Your task to perform on an android device: Do I have any events this weekend? Image 0: 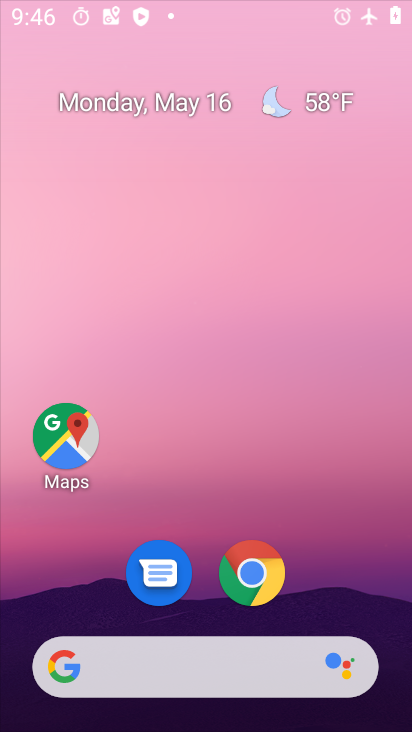
Step 0: drag from (366, 698) to (86, 146)
Your task to perform on an android device: Do I have any events this weekend? Image 1: 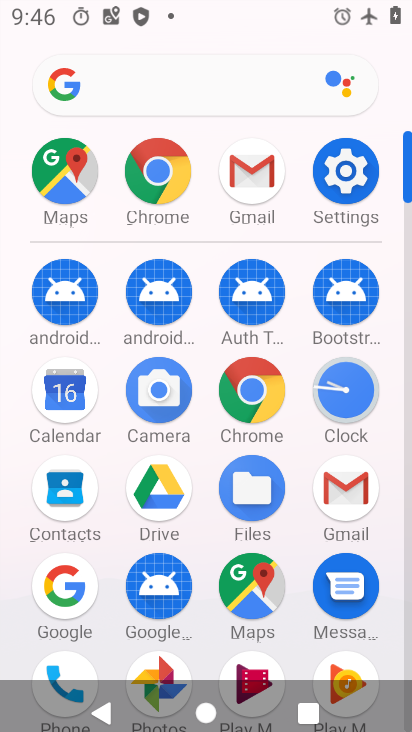
Step 1: click (323, 177)
Your task to perform on an android device: Do I have any events this weekend? Image 2: 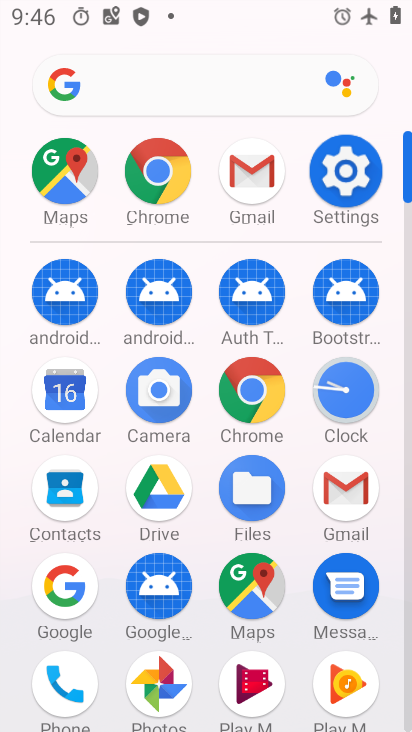
Step 2: click (323, 177)
Your task to perform on an android device: Do I have any events this weekend? Image 3: 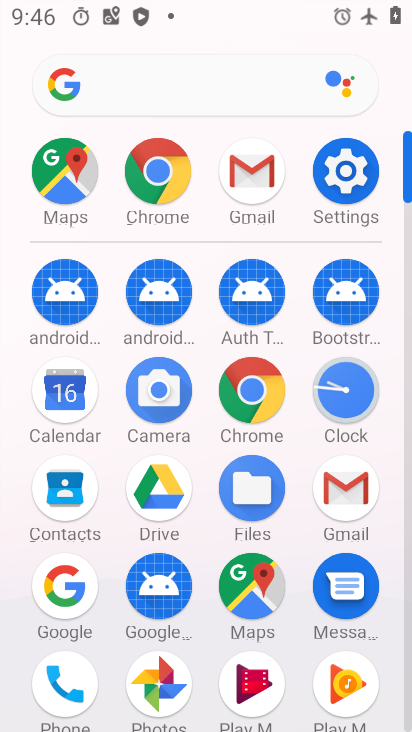
Step 3: click (351, 179)
Your task to perform on an android device: Do I have any events this weekend? Image 4: 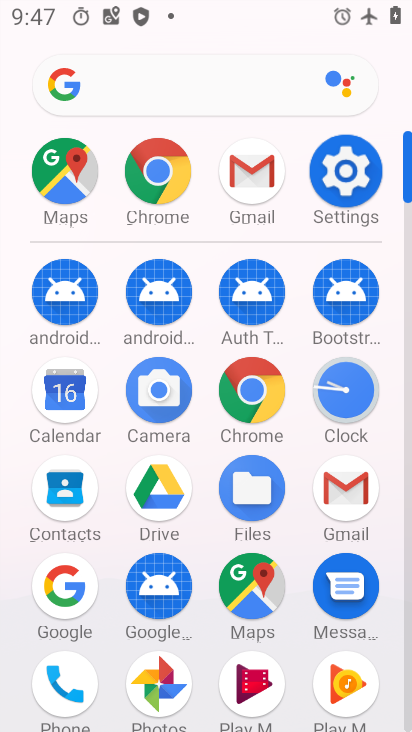
Step 4: click (351, 179)
Your task to perform on an android device: Do I have any events this weekend? Image 5: 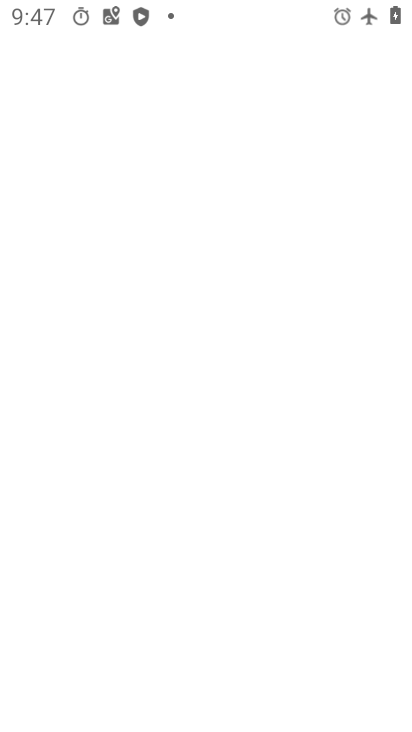
Step 5: click (351, 179)
Your task to perform on an android device: Do I have any events this weekend? Image 6: 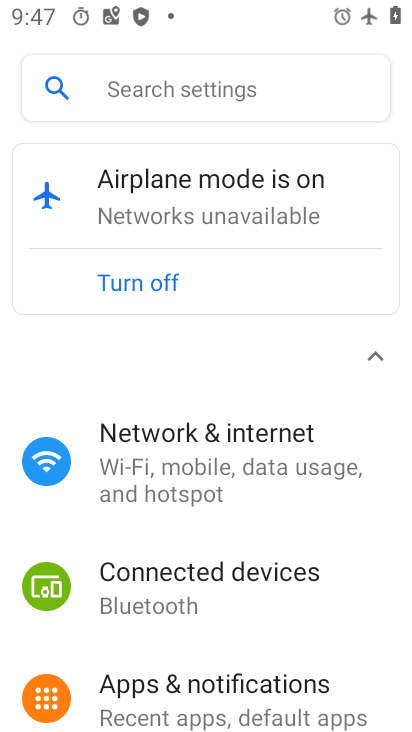
Step 6: click (220, 443)
Your task to perform on an android device: Do I have any events this weekend? Image 7: 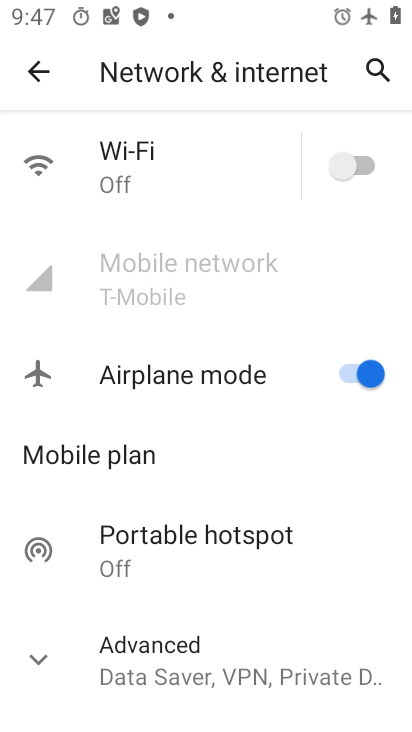
Step 7: click (368, 375)
Your task to perform on an android device: Do I have any events this weekend? Image 8: 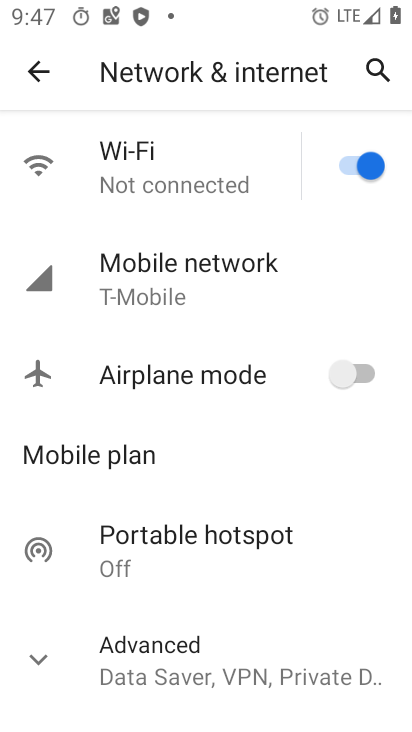
Step 8: press back button
Your task to perform on an android device: Do I have any events this weekend? Image 9: 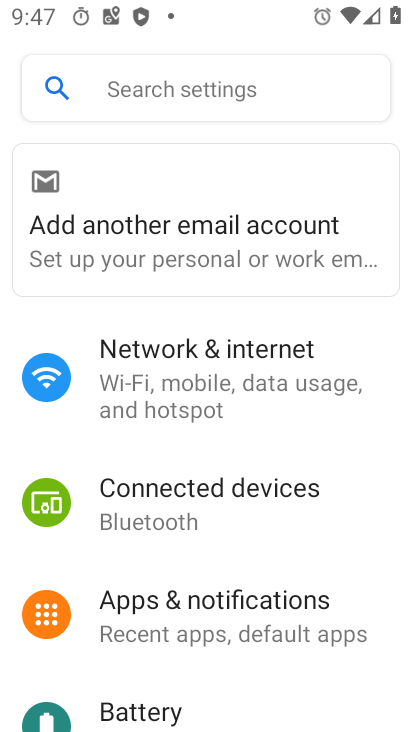
Step 9: press home button
Your task to perform on an android device: Do I have any events this weekend? Image 10: 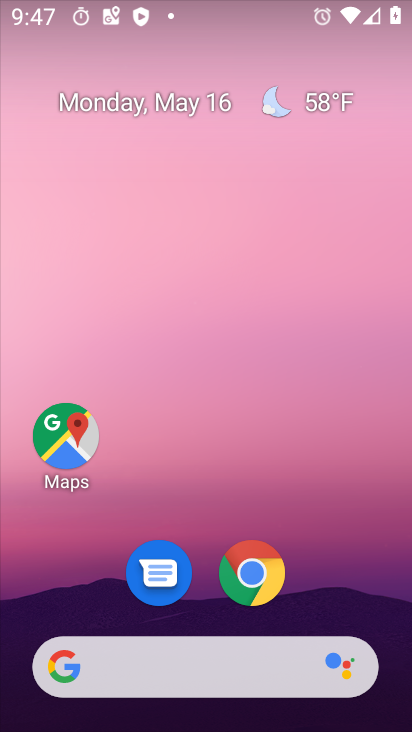
Step 10: drag from (312, 646) to (81, 197)
Your task to perform on an android device: Do I have any events this weekend? Image 11: 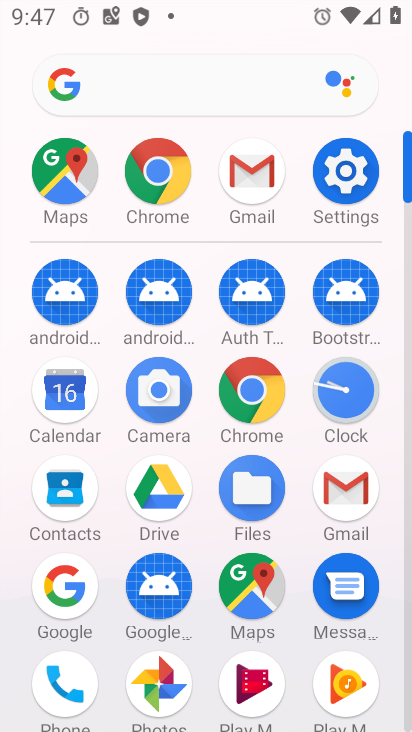
Step 11: click (63, 398)
Your task to perform on an android device: Do I have any events this weekend? Image 12: 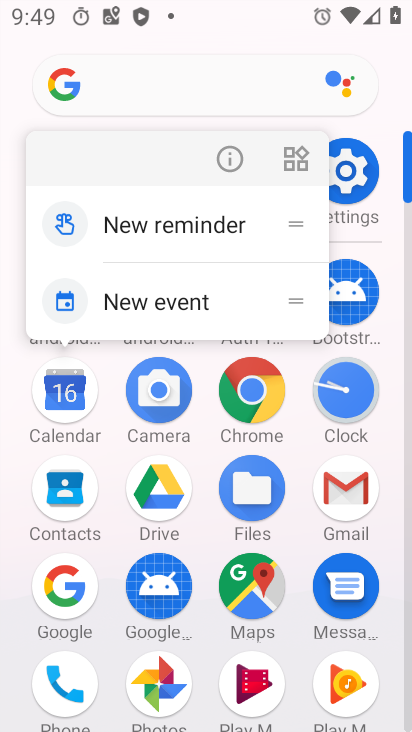
Step 12: click (63, 398)
Your task to perform on an android device: Do I have any events this weekend? Image 13: 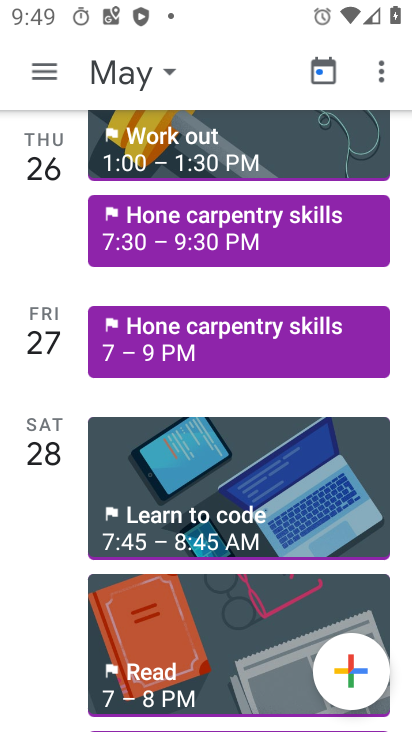
Step 13: drag from (125, 152) to (222, 467)
Your task to perform on an android device: Do I have any events this weekend? Image 14: 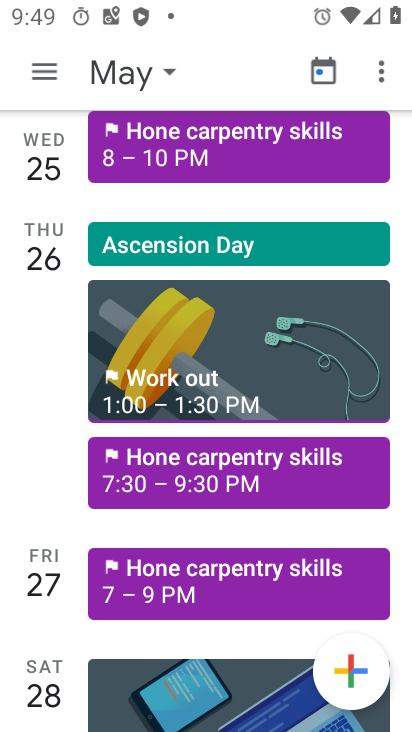
Step 14: drag from (145, 164) to (212, 542)
Your task to perform on an android device: Do I have any events this weekend? Image 15: 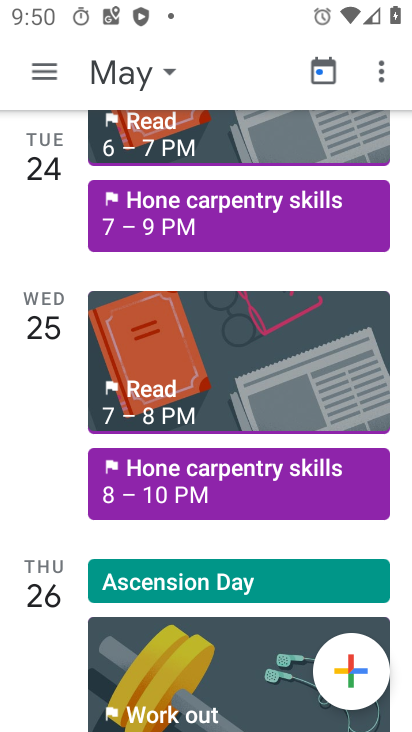
Step 15: drag from (168, 145) to (226, 623)
Your task to perform on an android device: Do I have any events this weekend? Image 16: 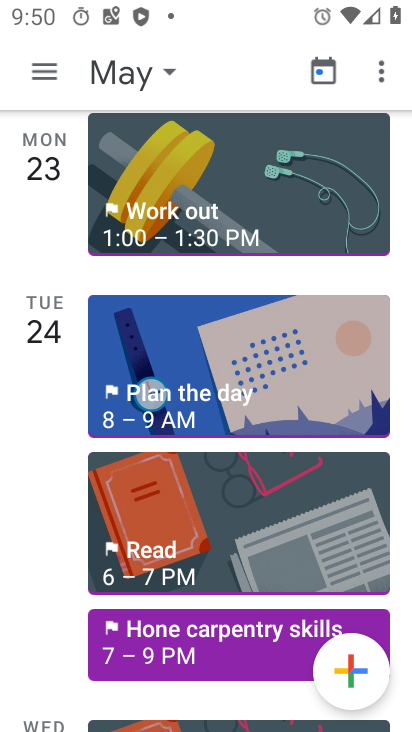
Step 16: drag from (142, 202) to (249, 626)
Your task to perform on an android device: Do I have any events this weekend? Image 17: 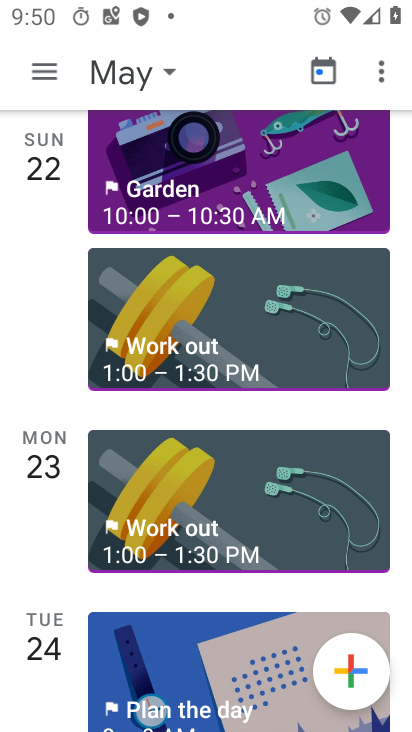
Step 17: drag from (185, 190) to (300, 627)
Your task to perform on an android device: Do I have any events this weekend? Image 18: 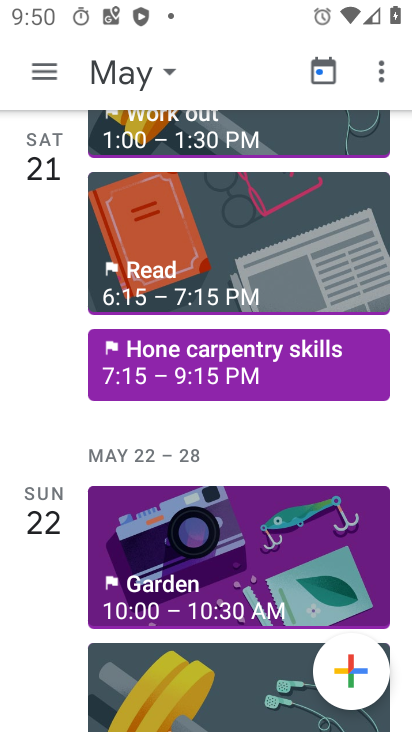
Step 18: drag from (175, 193) to (199, 543)
Your task to perform on an android device: Do I have any events this weekend? Image 19: 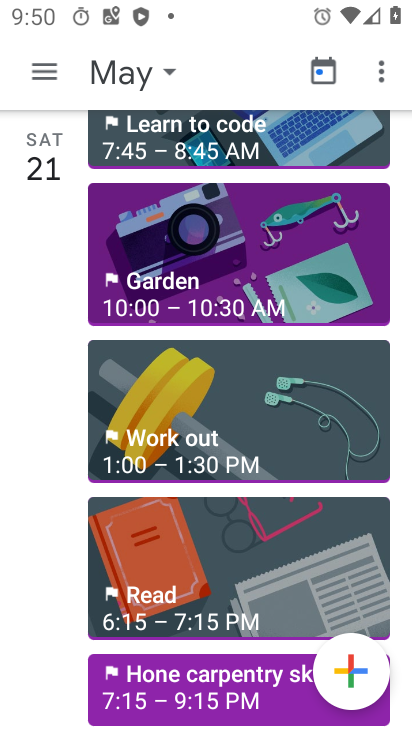
Step 19: drag from (175, 159) to (218, 509)
Your task to perform on an android device: Do I have any events this weekend? Image 20: 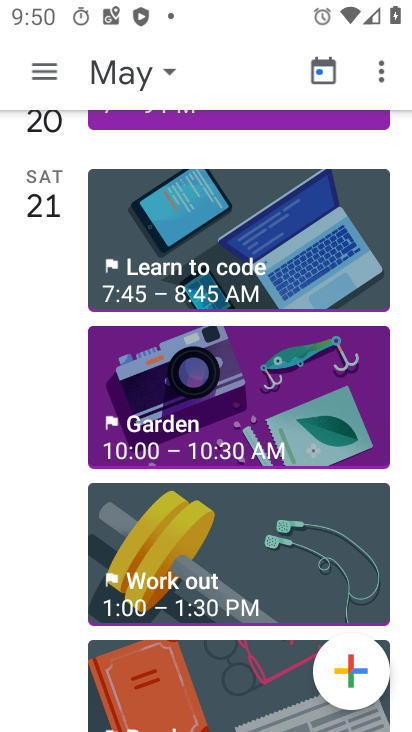
Step 20: drag from (113, 174) to (239, 607)
Your task to perform on an android device: Do I have any events this weekend? Image 21: 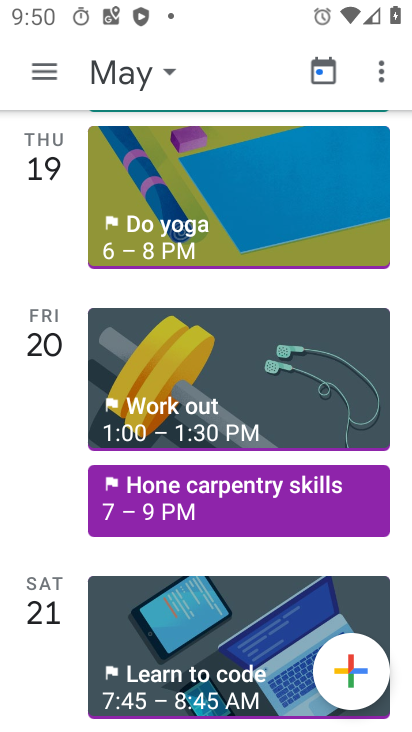
Step 21: click (216, 204)
Your task to perform on an android device: Do I have any events this weekend? Image 22: 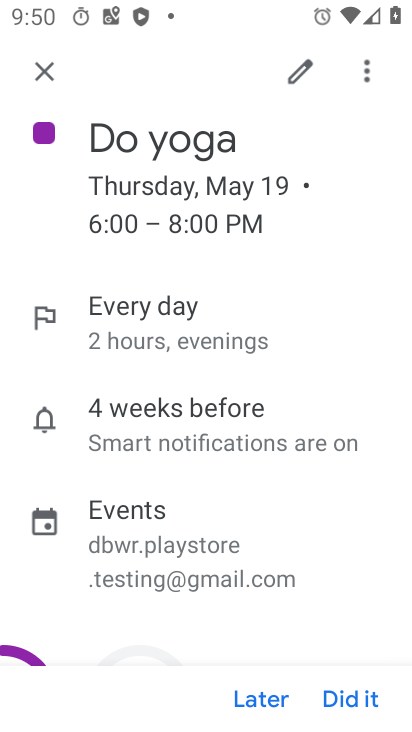
Step 22: click (42, 71)
Your task to perform on an android device: Do I have any events this weekend? Image 23: 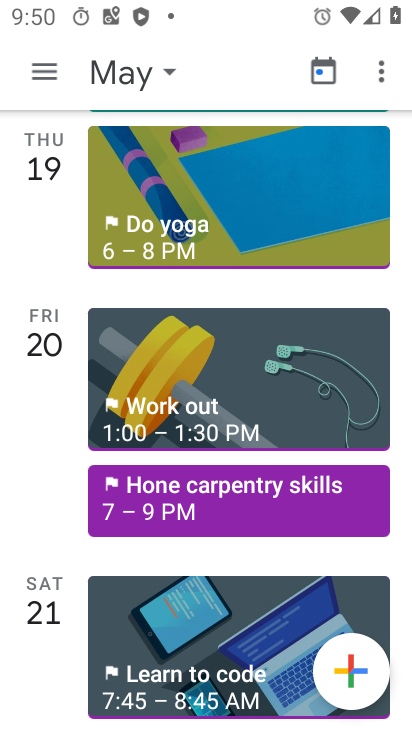
Step 23: click (217, 665)
Your task to perform on an android device: Do I have any events this weekend? Image 24: 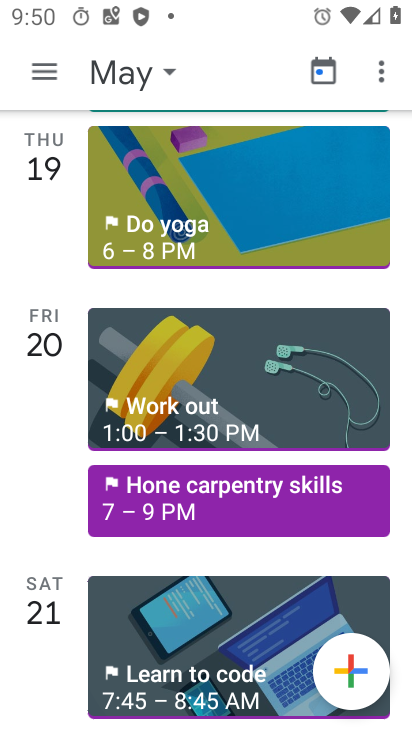
Step 24: click (217, 665)
Your task to perform on an android device: Do I have any events this weekend? Image 25: 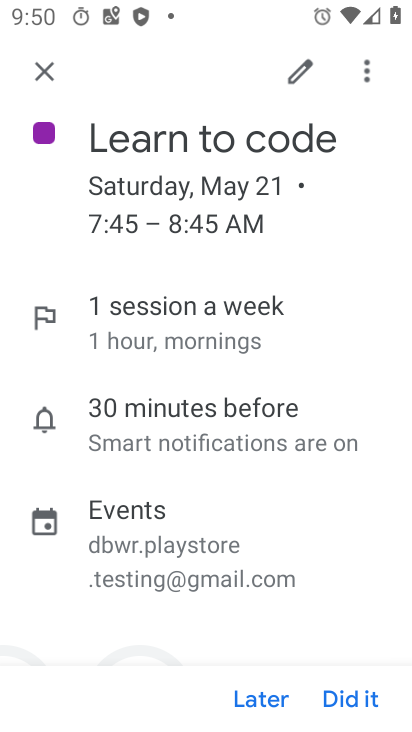
Step 25: task complete